Your task to perform on an android device: Search for Mexican restaurants on Maps Image 0: 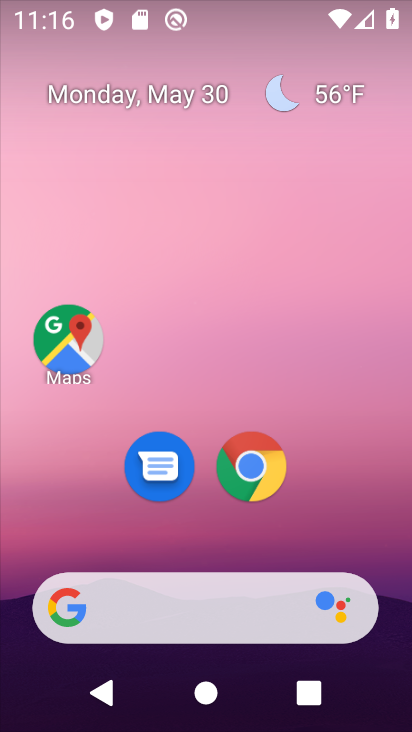
Step 0: click (90, 353)
Your task to perform on an android device: Search for Mexican restaurants on Maps Image 1: 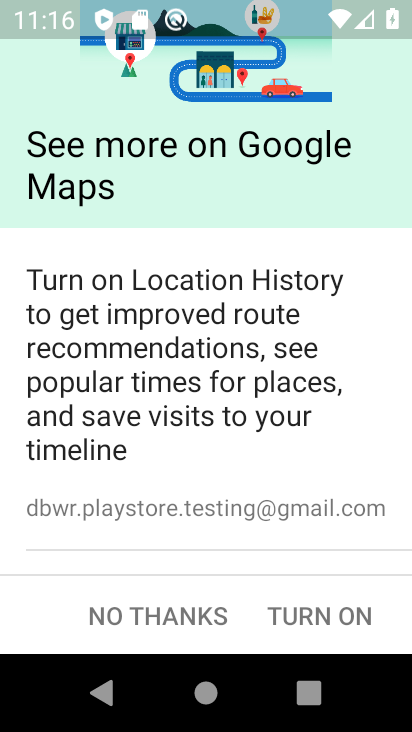
Step 1: click (283, 612)
Your task to perform on an android device: Search for Mexican restaurants on Maps Image 2: 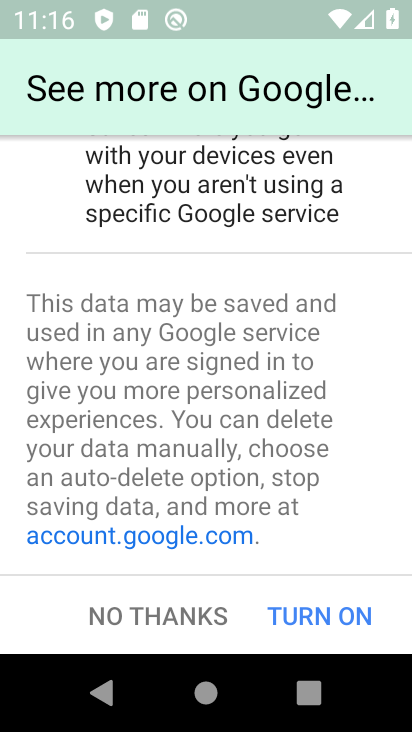
Step 2: click (317, 613)
Your task to perform on an android device: Search for Mexican restaurants on Maps Image 3: 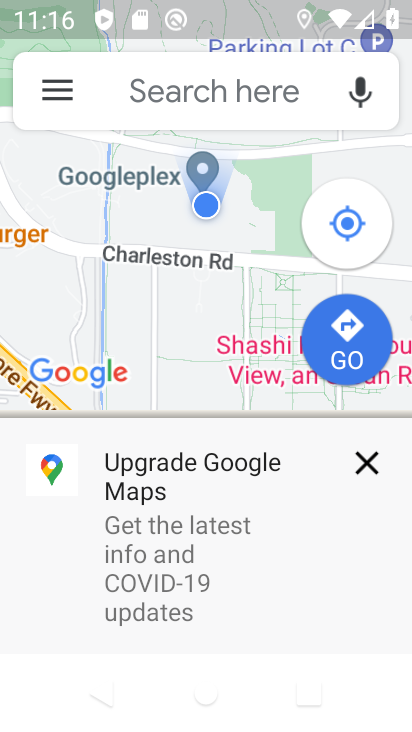
Step 3: click (358, 463)
Your task to perform on an android device: Search for Mexican restaurants on Maps Image 4: 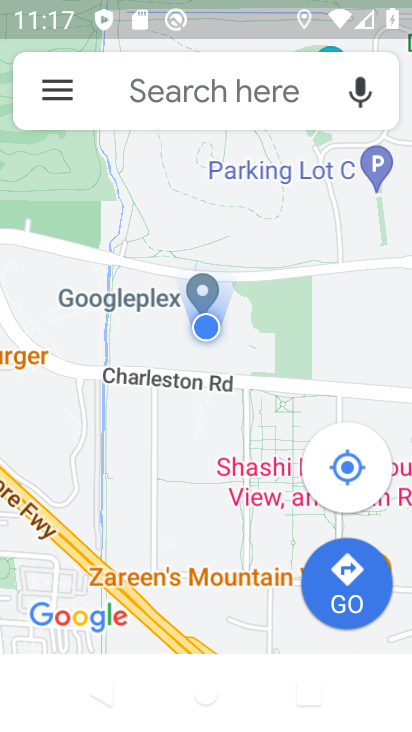
Step 4: click (172, 78)
Your task to perform on an android device: Search for Mexican restaurants on Maps Image 5: 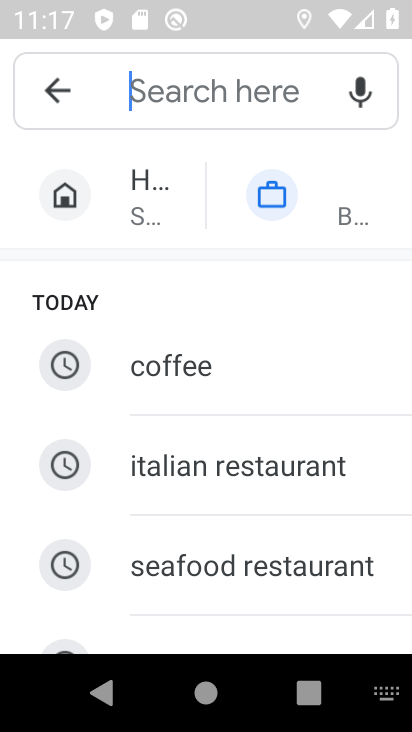
Step 5: drag from (204, 605) to (188, 300)
Your task to perform on an android device: Search for Mexican restaurants on Maps Image 6: 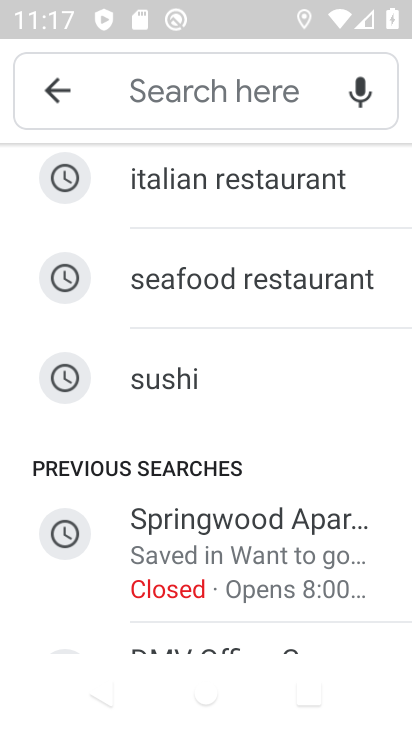
Step 6: drag from (198, 525) to (195, 273)
Your task to perform on an android device: Search for Mexican restaurants on Maps Image 7: 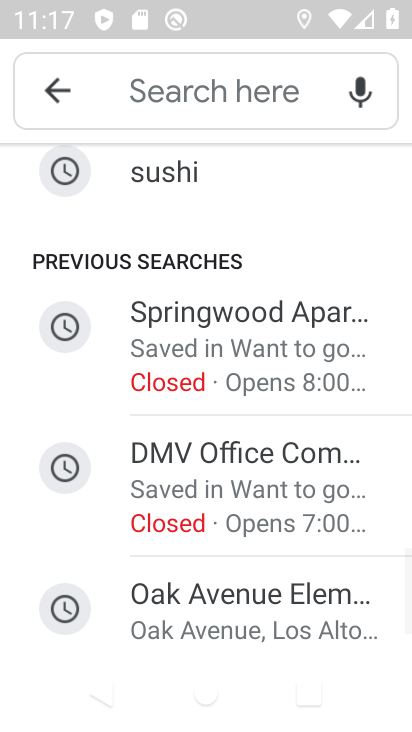
Step 7: click (191, 96)
Your task to perform on an android device: Search for Mexican restaurants on Maps Image 8: 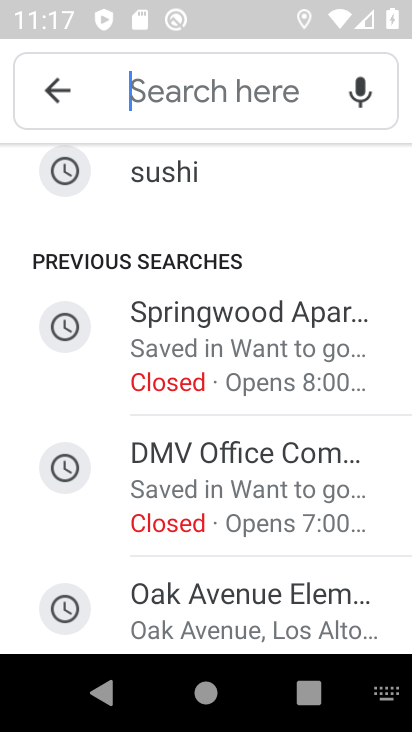
Step 8: type "mexican"
Your task to perform on an android device: Search for Mexican restaurants on Maps Image 9: 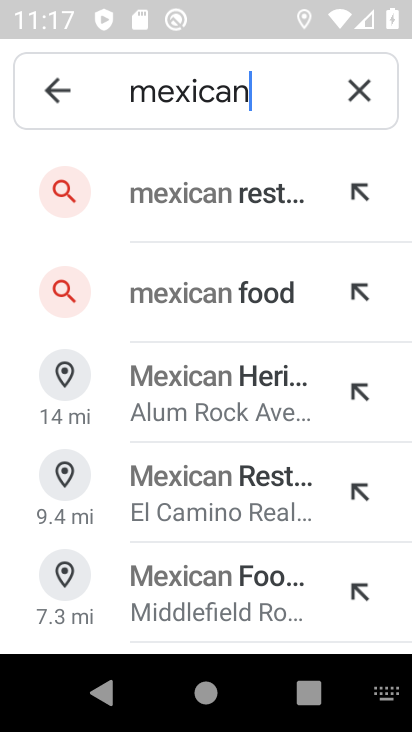
Step 9: click (258, 181)
Your task to perform on an android device: Search for Mexican restaurants on Maps Image 10: 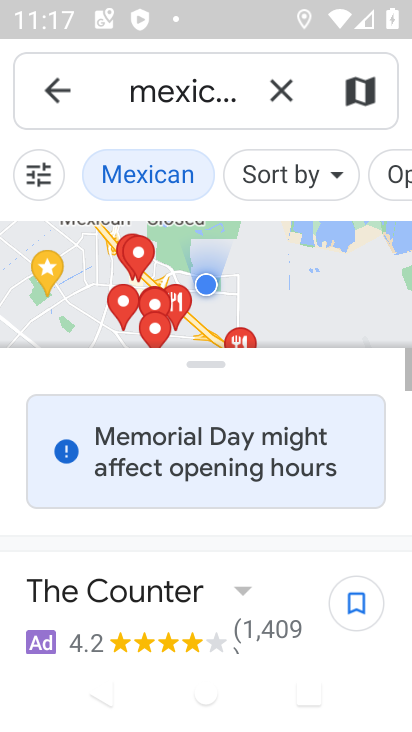
Step 10: task complete